Your task to perform on an android device: Toggle the flashlight Image 0: 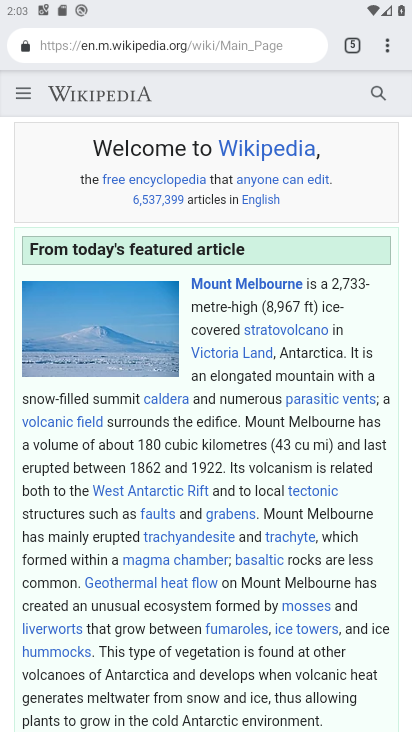
Step 0: press home button
Your task to perform on an android device: Toggle the flashlight Image 1: 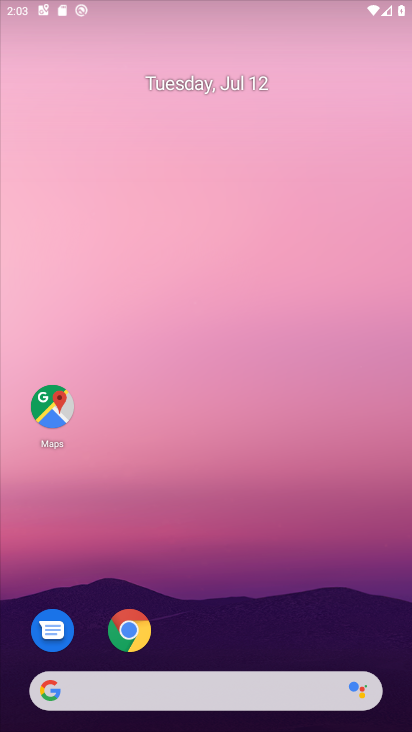
Step 1: task complete